Your task to perform on an android device: turn on improve location accuracy Image 0: 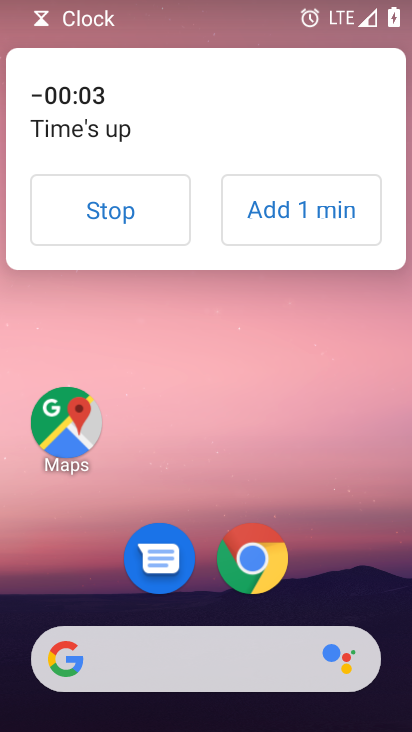
Step 0: click (112, 210)
Your task to perform on an android device: turn on improve location accuracy Image 1: 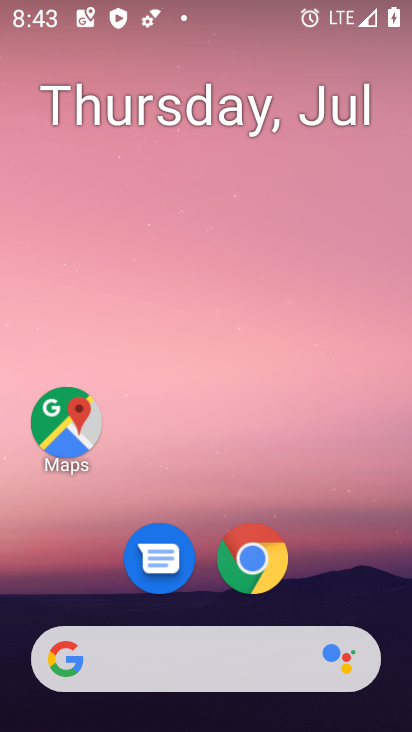
Step 1: drag from (201, 692) to (279, 154)
Your task to perform on an android device: turn on improve location accuracy Image 2: 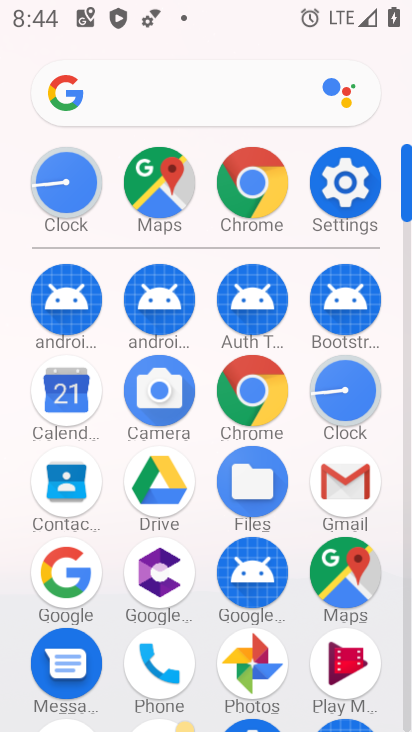
Step 2: click (341, 200)
Your task to perform on an android device: turn on improve location accuracy Image 3: 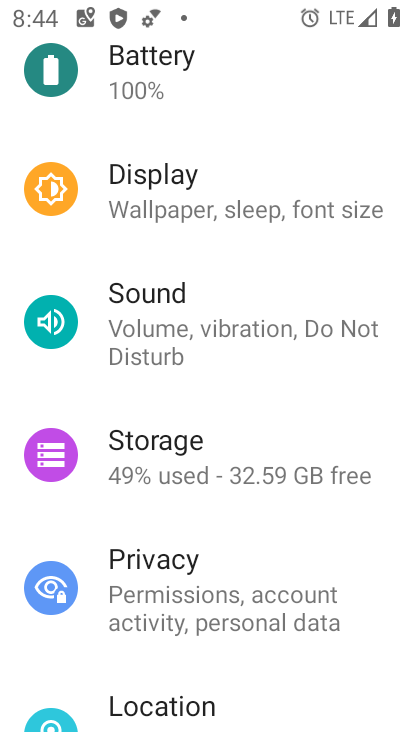
Step 3: drag from (208, 590) to (320, 342)
Your task to perform on an android device: turn on improve location accuracy Image 4: 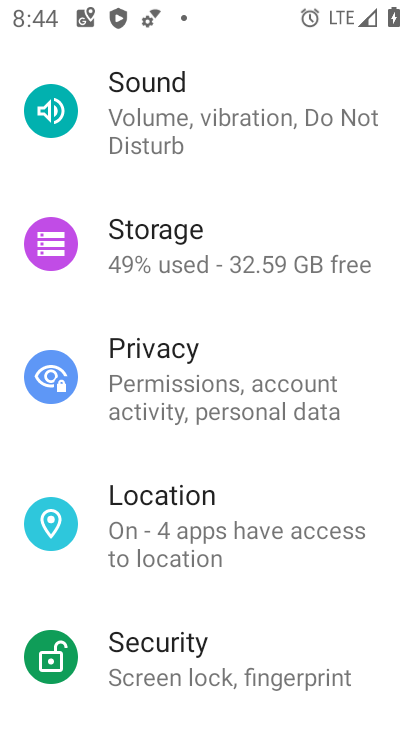
Step 4: click (241, 524)
Your task to perform on an android device: turn on improve location accuracy Image 5: 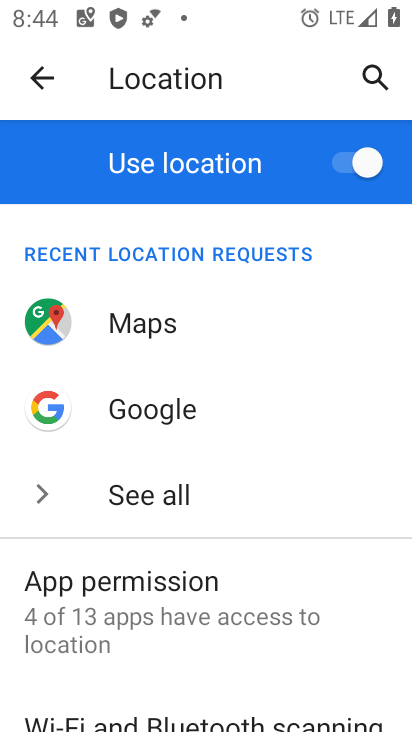
Step 5: drag from (243, 412) to (268, 207)
Your task to perform on an android device: turn on improve location accuracy Image 6: 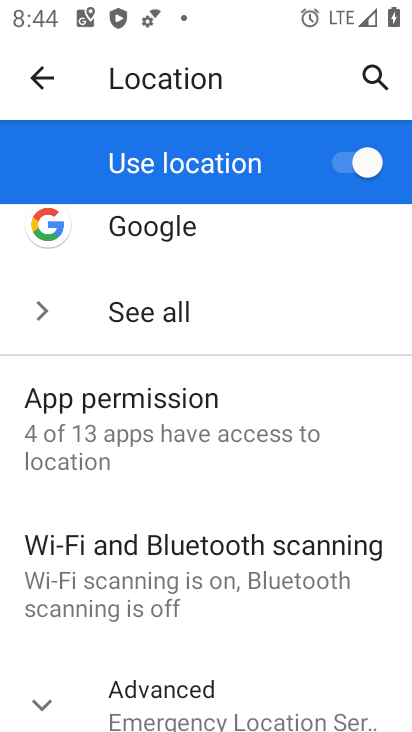
Step 6: drag from (249, 582) to (290, 336)
Your task to perform on an android device: turn on improve location accuracy Image 7: 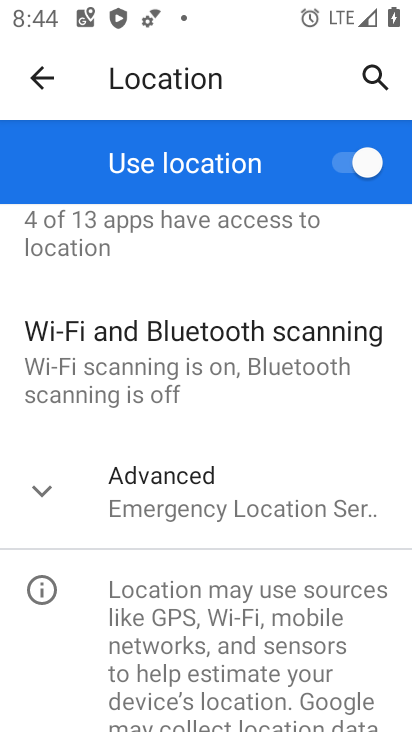
Step 7: click (250, 478)
Your task to perform on an android device: turn on improve location accuracy Image 8: 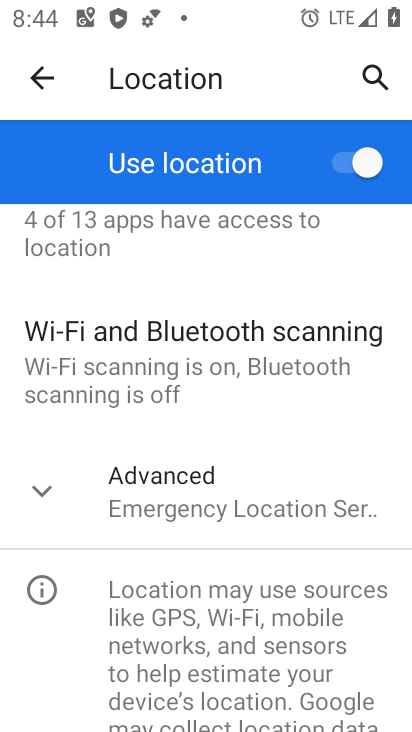
Step 8: click (250, 478)
Your task to perform on an android device: turn on improve location accuracy Image 9: 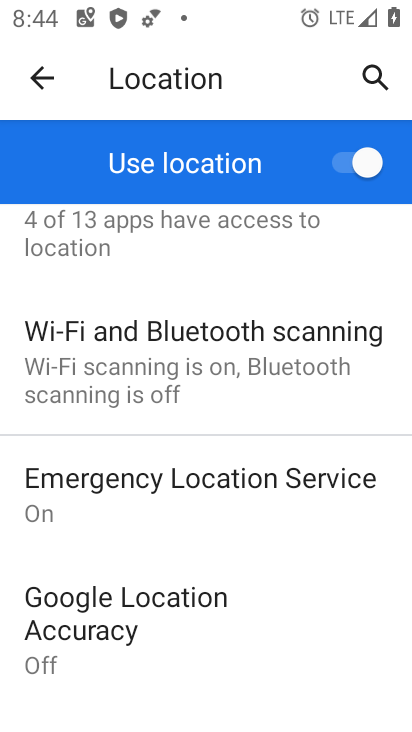
Step 9: click (214, 608)
Your task to perform on an android device: turn on improve location accuracy Image 10: 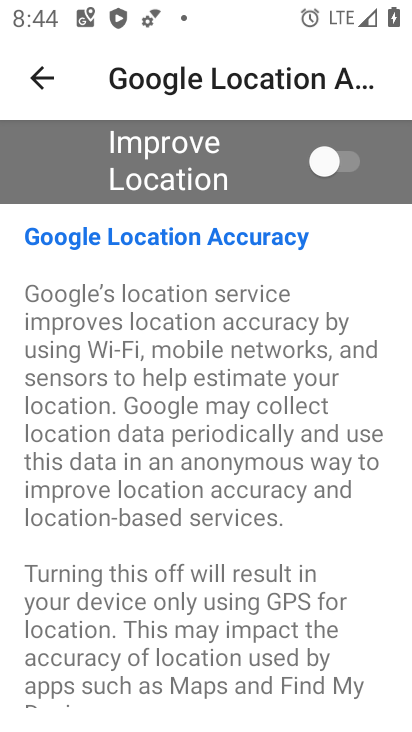
Step 10: click (356, 155)
Your task to perform on an android device: turn on improve location accuracy Image 11: 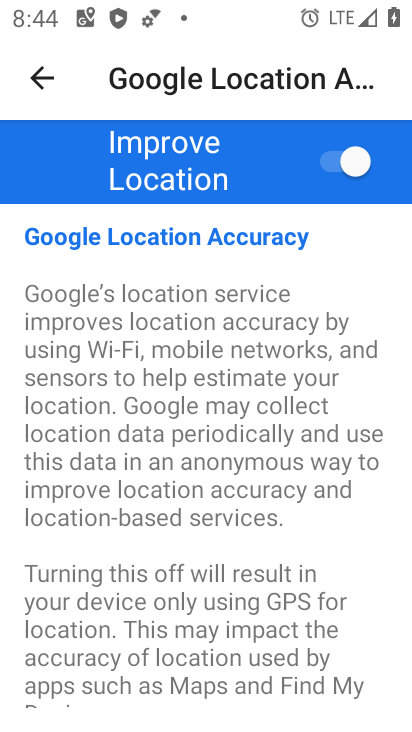
Step 11: task complete